Your task to perform on an android device: Open Chrome and go to the settings page Image 0: 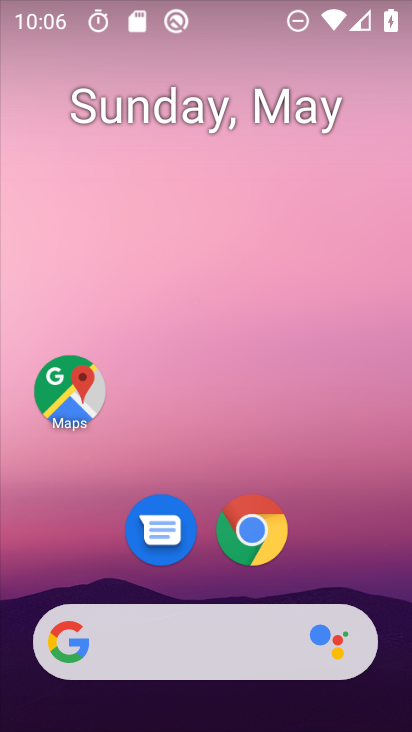
Step 0: press home button
Your task to perform on an android device: Open Chrome and go to the settings page Image 1: 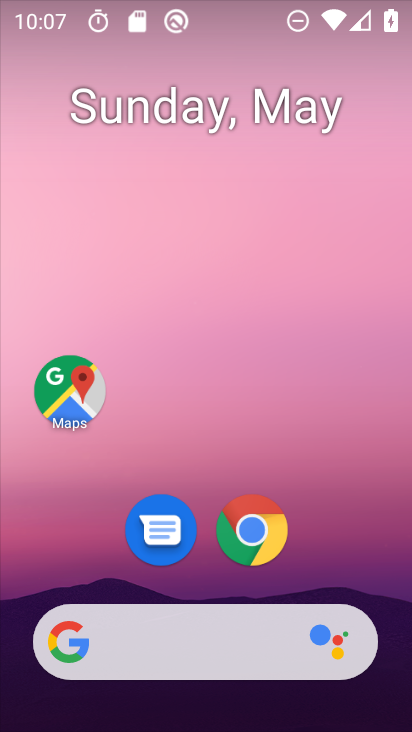
Step 1: drag from (151, 358) to (124, 267)
Your task to perform on an android device: Open Chrome and go to the settings page Image 2: 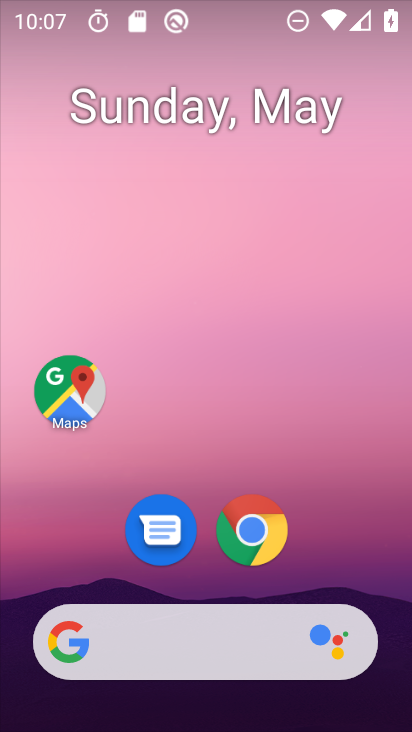
Step 2: drag from (156, 675) to (20, 153)
Your task to perform on an android device: Open Chrome and go to the settings page Image 3: 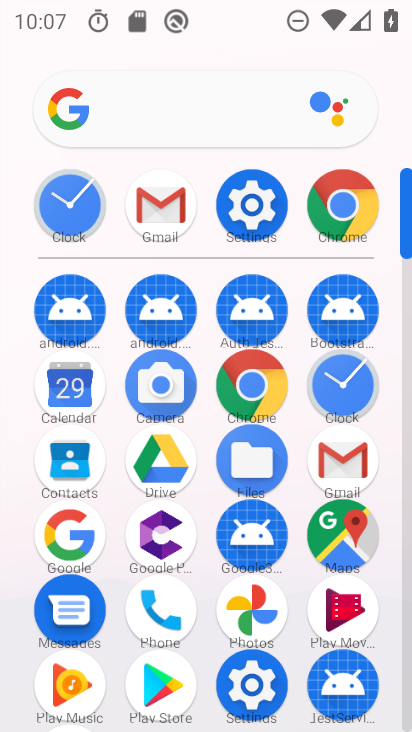
Step 3: click (352, 220)
Your task to perform on an android device: Open Chrome and go to the settings page Image 4: 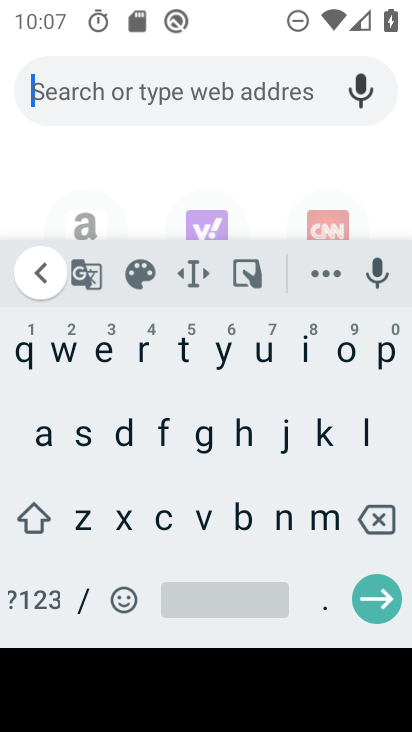
Step 4: press back button
Your task to perform on an android device: Open Chrome and go to the settings page Image 5: 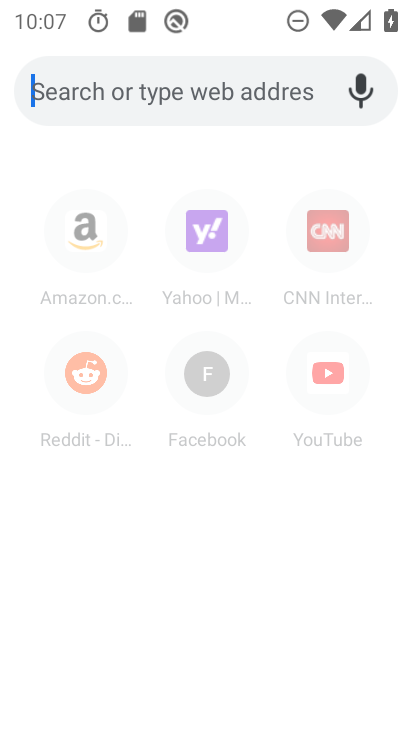
Step 5: press back button
Your task to perform on an android device: Open Chrome and go to the settings page Image 6: 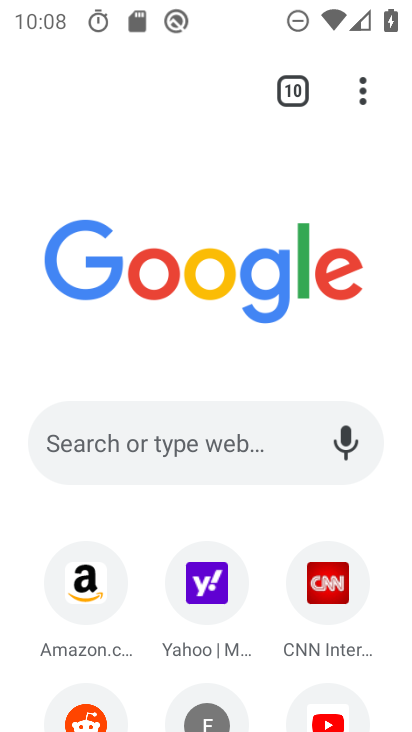
Step 6: click (352, 105)
Your task to perform on an android device: Open Chrome and go to the settings page Image 7: 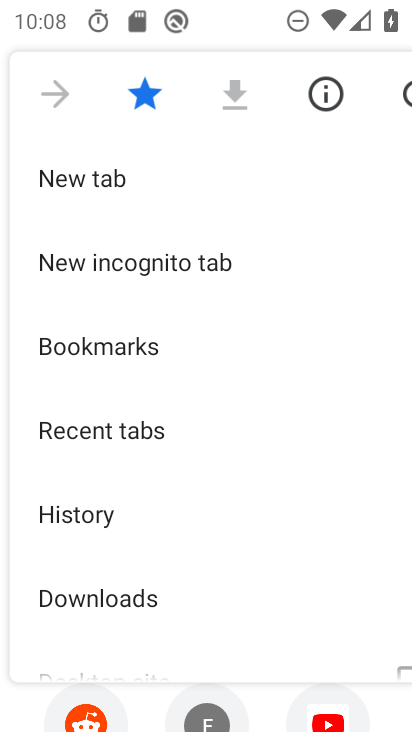
Step 7: drag from (177, 565) to (113, 272)
Your task to perform on an android device: Open Chrome and go to the settings page Image 8: 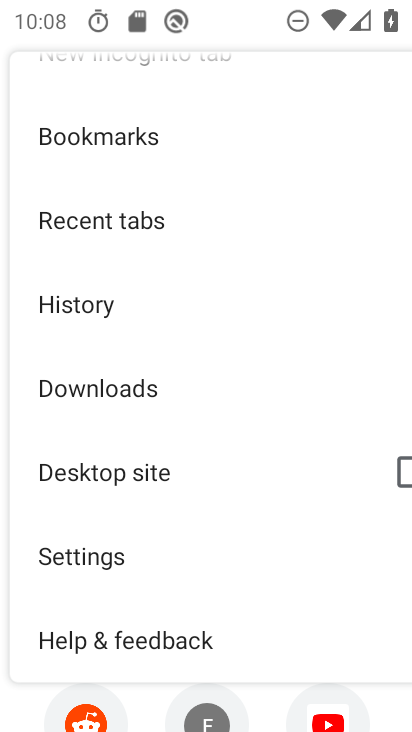
Step 8: click (129, 552)
Your task to perform on an android device: Open Chrome and go to the settings page Image 9: 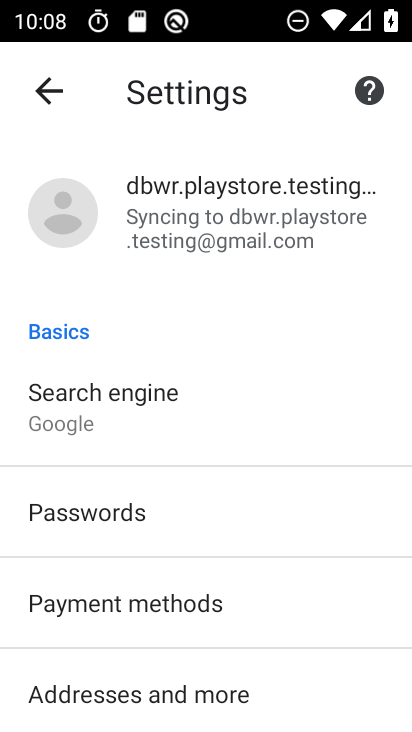
Step 9: task complete